Your task to perform on an android device: change the clock display to analog Image 0: 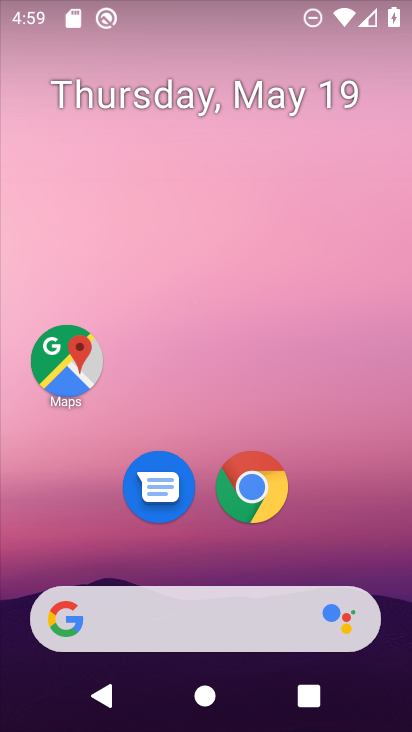
Step 0: drag from (332, 526) to (215, 107)
Your task to perform on an android device: change the clock display to analog Image 1: 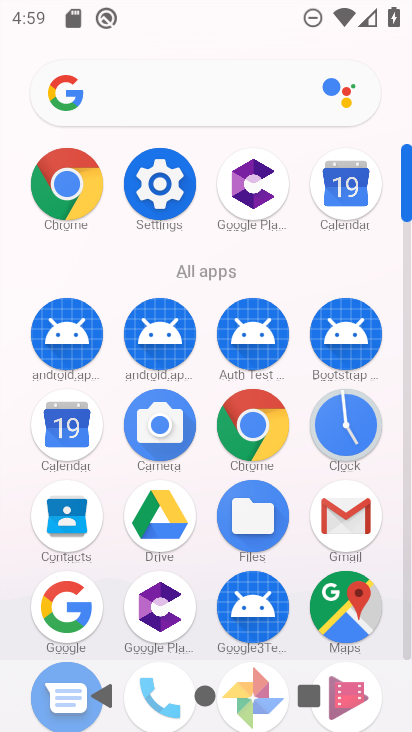
Step 1: click (343, 424)
Your task to perform on an android device: change the clock display to analog Image 2: 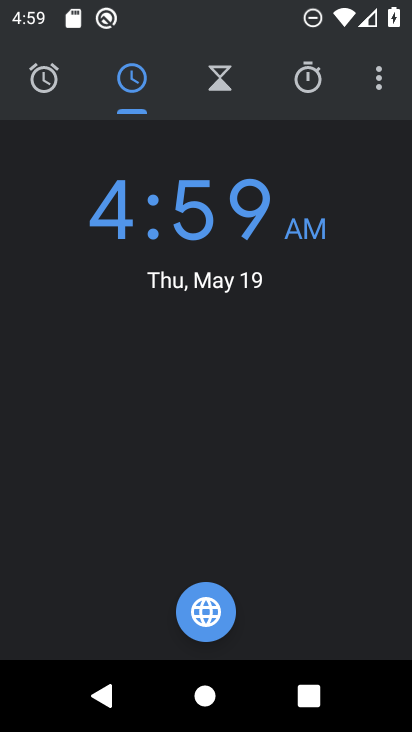
Step 2: click (380, 78)
Your task to perform on an android device: change the clock display to analog Image 3: 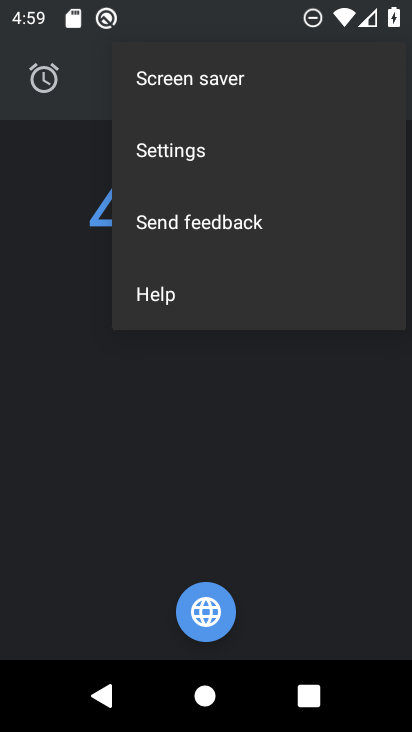
Step 3: click (175, 154)
Your task to perform on an android device: change the clock display to analog Image 4: 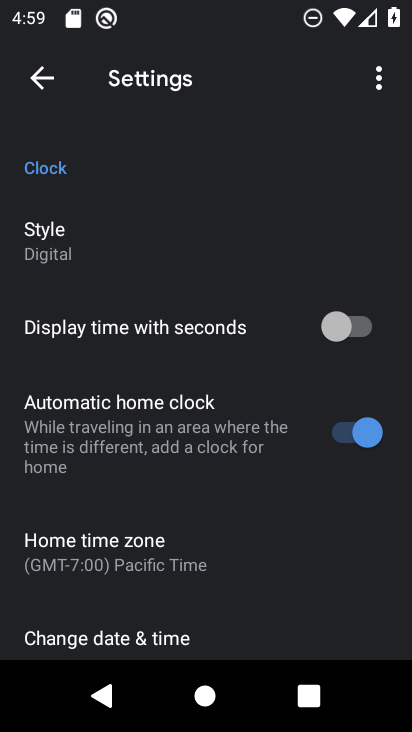
Step 4: click (76, 244)
Your task to perform on an android device: change the clock display to analog Image 5: 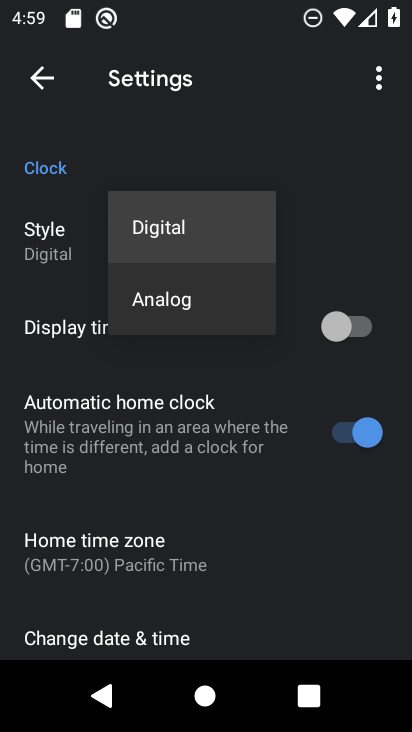
Step 5: click (176, 306)
Your task to perform on an android device: change the clock display to analog Image 6: 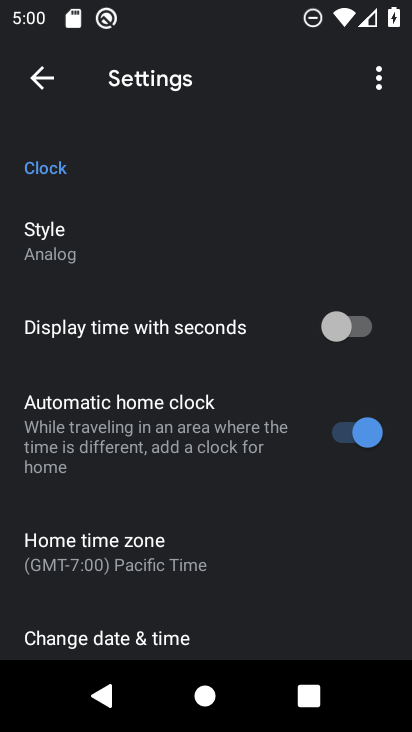
Step 6: task complete